Your task to perform on an android device: open sync settings in chrome Image 0: 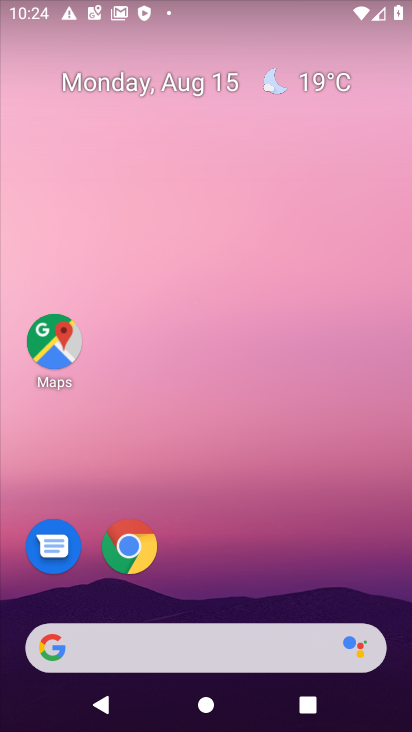
Step 0: click (130, 549)
Your task to perform on an android device: open sync settings in chrome Image 1: 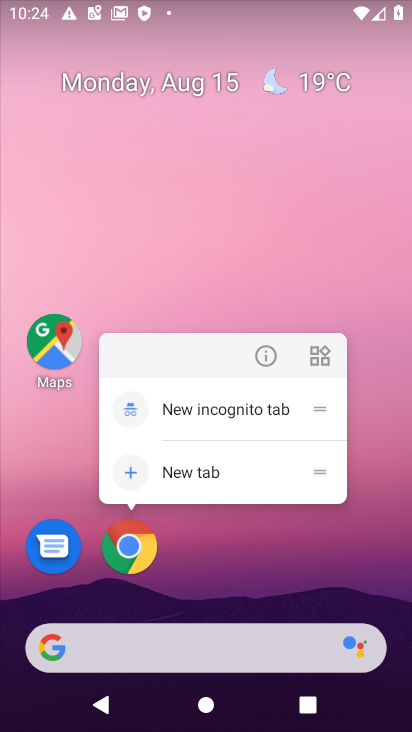
Step 1: click (116, 550)
Your task to perform on an android device: open sync settings in chrome Image 2: 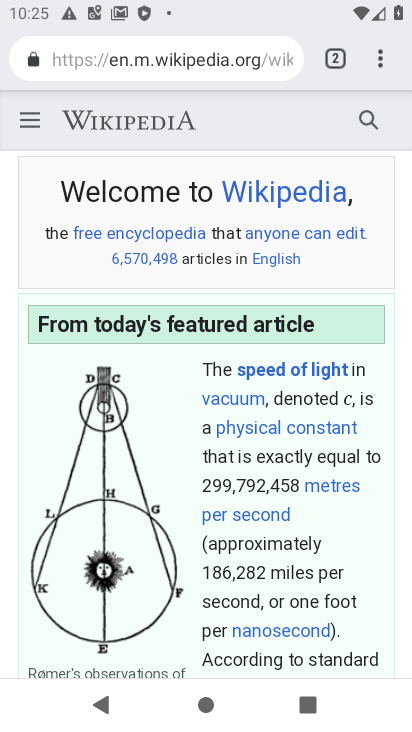
Step 2: press home button
Your task to perform on an android device: open sync settings in chrome Image 3: 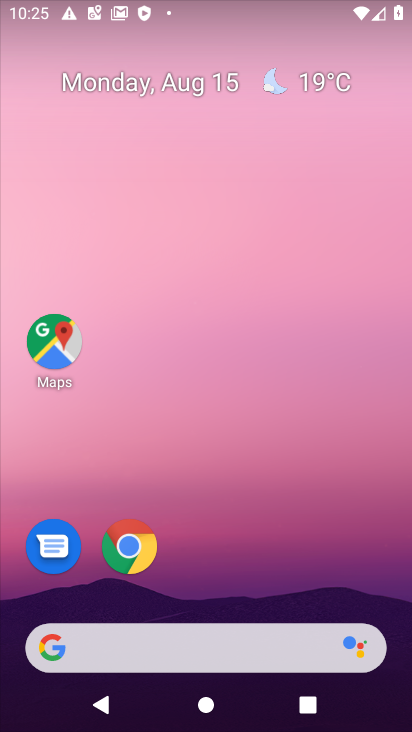
Step 3: drag from (216, 614) to (223, 103)
Your task to perform on an android device: open sync settings in chrome Image 4: 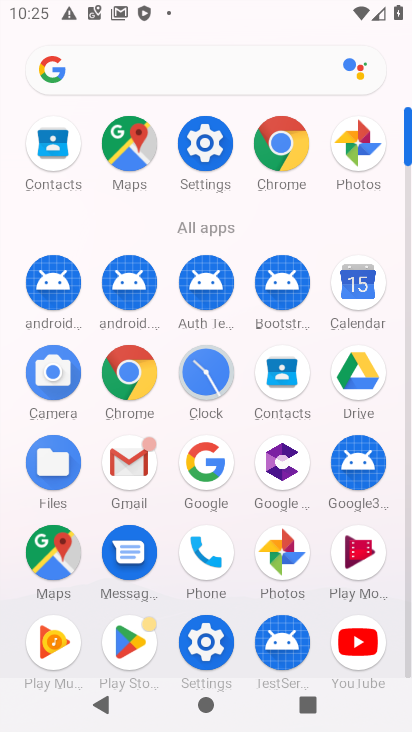
Step 4: click (282, 143)
Your task to perform on an android device: open sync settings in chrome Image 5: 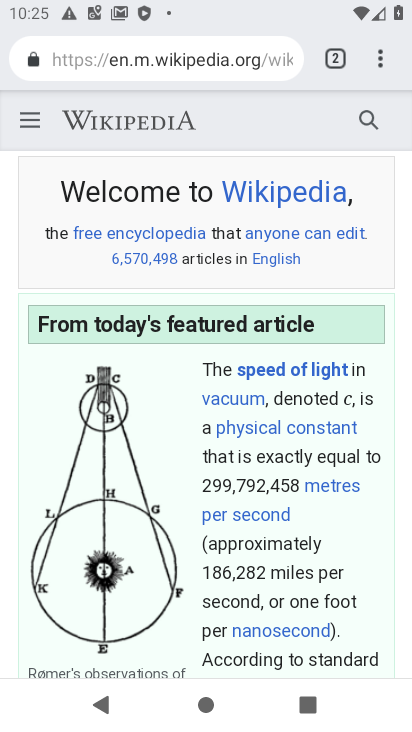
Step 5: click (379, 64)
Your task to perform on an android device: open sync settings in chrome Image 6: 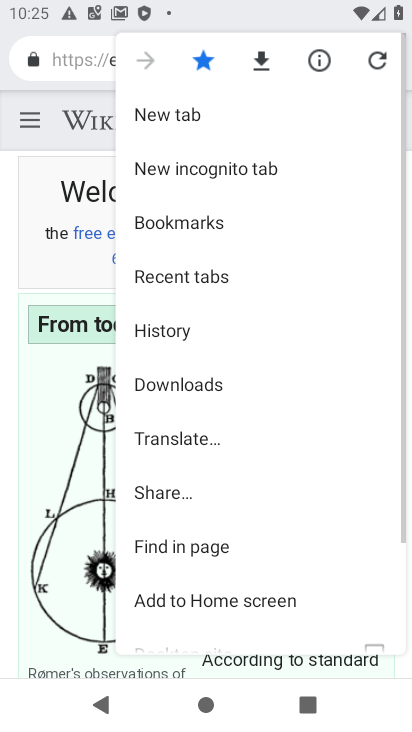
Step 6: drag from (173, 597) to (175, 214)
Your task to perform on an android device: open sync settings in chrome Image 7: 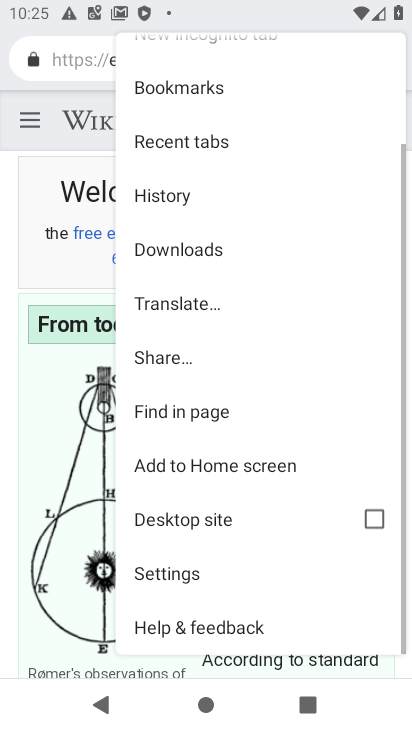
Step 7: click (169, 570)
Your task to perform on an android device: open sync settings in chrome Image 8: 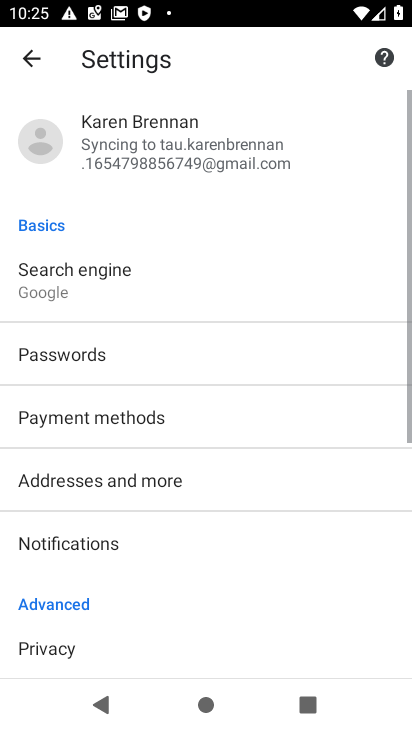
Step 8: drag from (142, 650) to (175, 282)
Your task to perform on an android device: open sync settings in chrome Image 9: 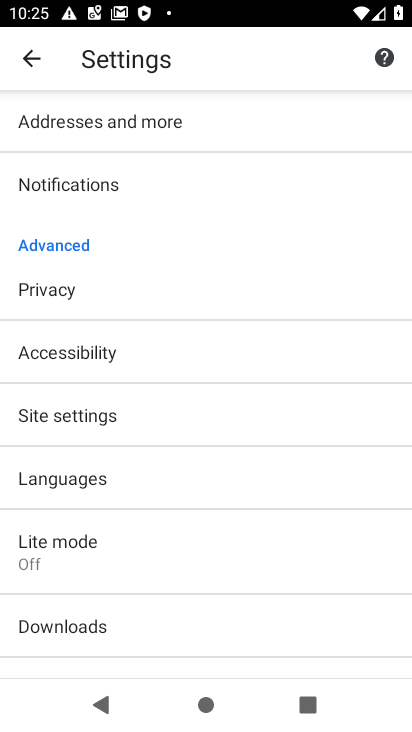
Step 9: click (84, 409)
Your task to perform on an android device: open sync settings in chrome Image 10: 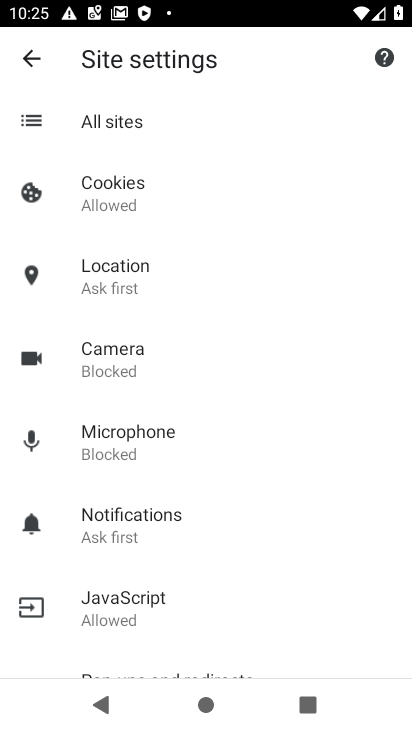
Step 10: drag from (117, 626) to (117, 333)
Your task to perform on an android device: open sync settings in chrome Image 11: 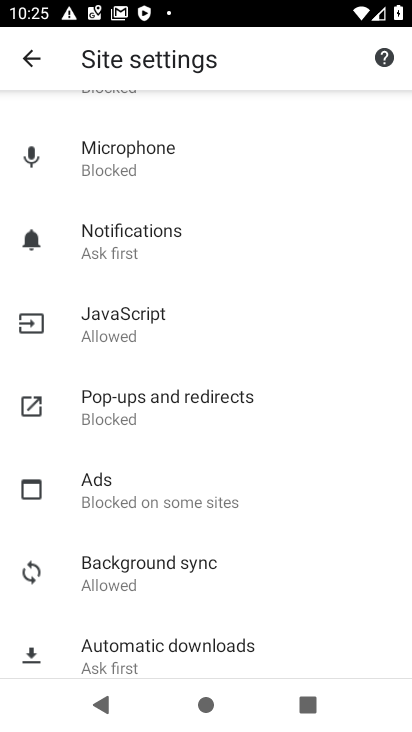
Step 11: click (192, 553)
Your task to perform on an android device: open sync settings in chrome Image 12: 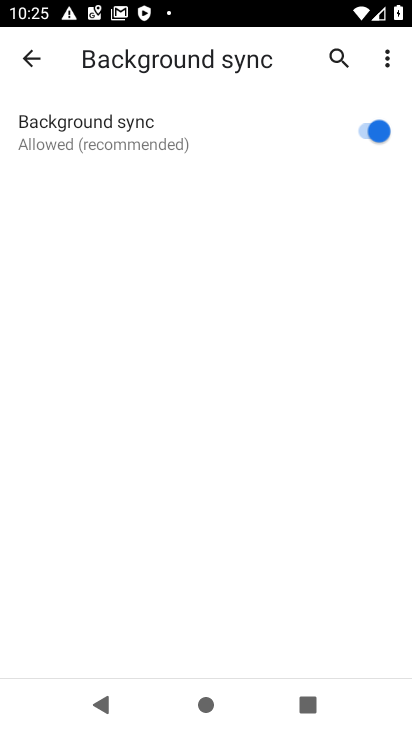
Step 12: task complete